Your task to perform on an android device: open chrome privacy settings Image 0: 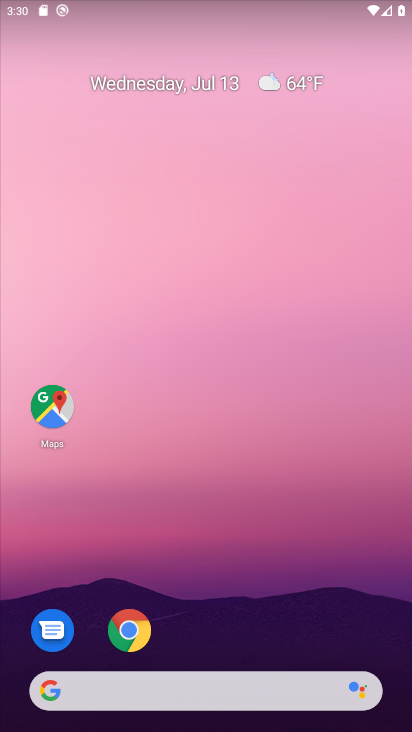
Step 0: click (137, 621)
Your task to perform on an android device: open chrome privacy settings Image 1: 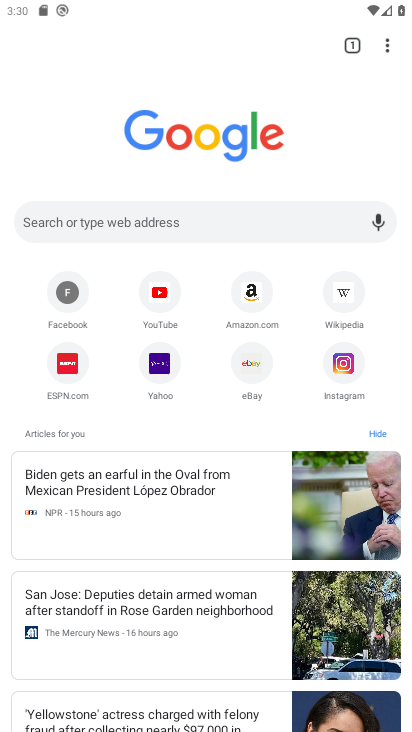
Step 1: click (394, 53)
Your task to perform on an android device: open chrome privacy settings Image 2: 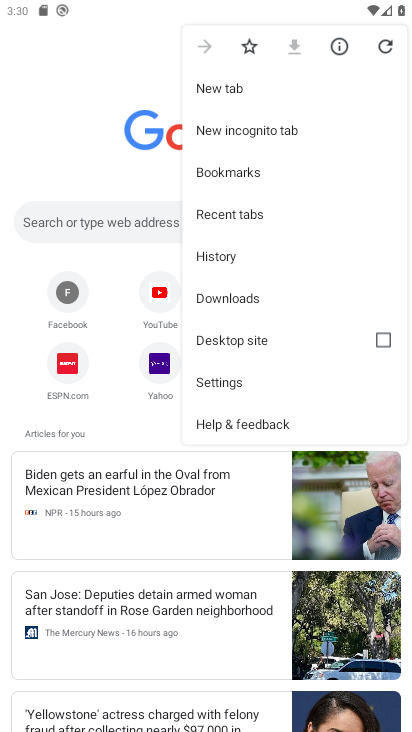
Step 2: click (211, 382)
Your task to perform on an android device: open chrome privacy settings Image 3: 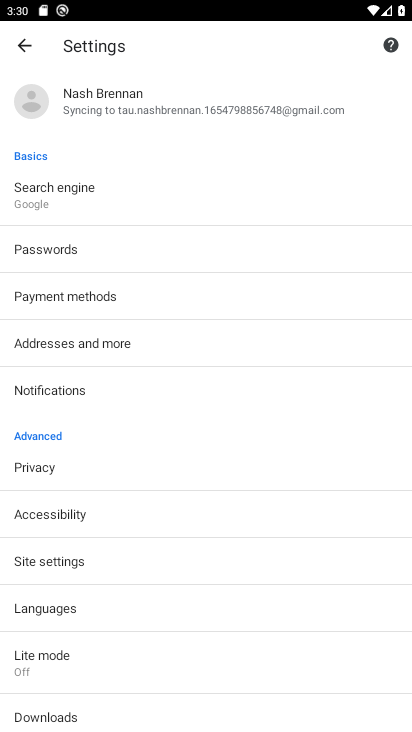
Step 3: click (74, 463)
Your task to perform on an android device: open chrome privacy settings Image 4: 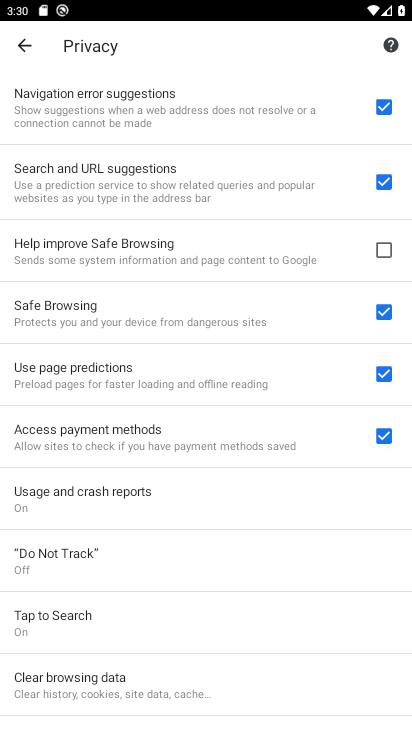
Step 4: task complete